Your task to perform on an android device: empty trash in google photos Image 0: 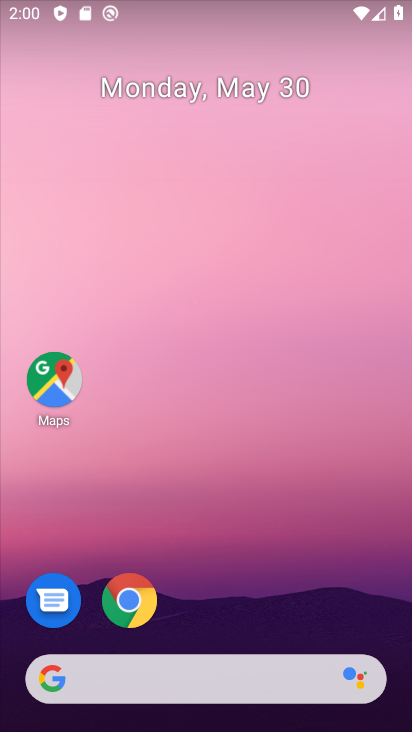
Step 0: drag from (267, 627) to (203, 129)
Your task to perform on an android device: empty trash in google photos Image 1: 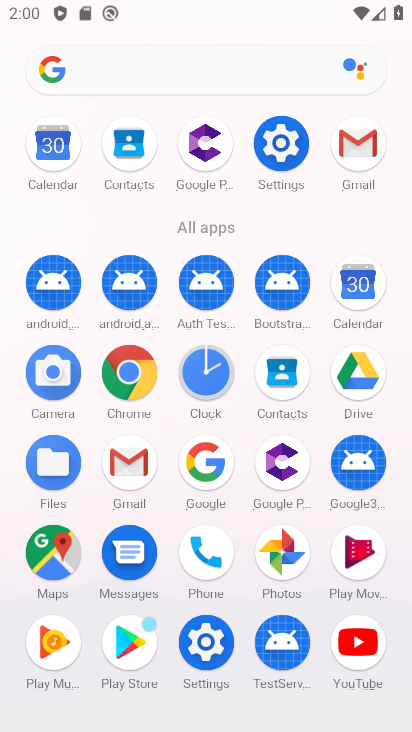
Step 1: click (289, 546)
Your task to perform on an android device: empty trash in google photos Image 2: 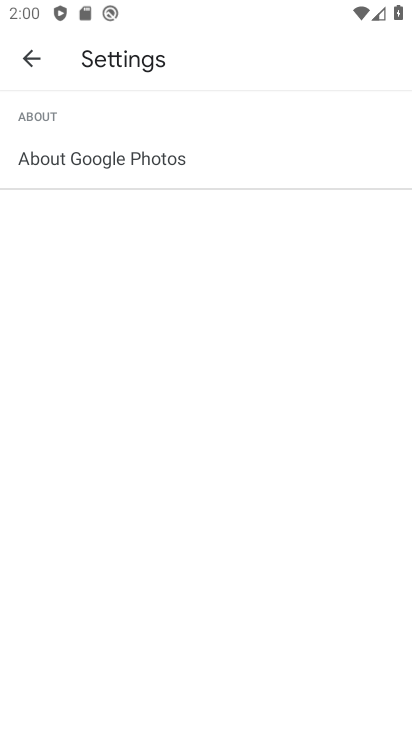
Step 2: click (35, 49)
Your task to perform on an android device: empty trash in google photos Image 3: 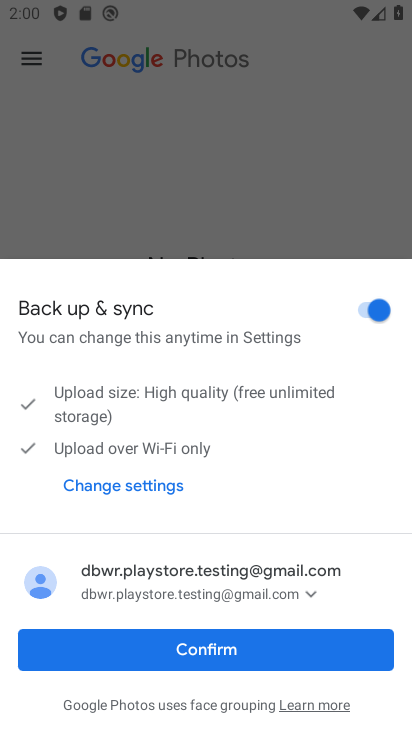
Step 3: click (237, 647)
Your task to perform on an android device: empty trash in google photos Image 4: 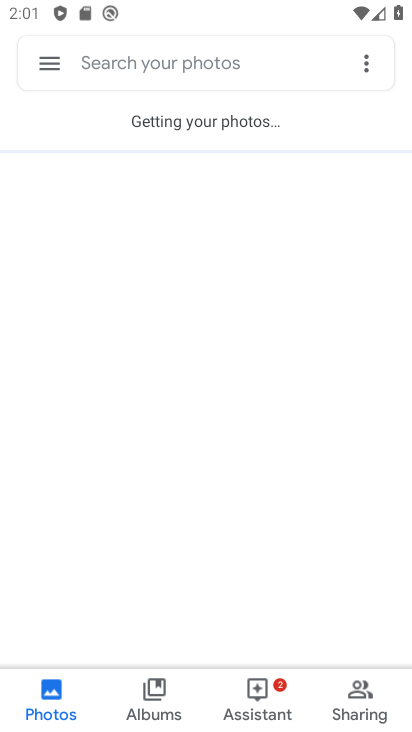
Step 4: click (50, 59)
Your task to perform on an android device: empty trash in google photos Image 5: 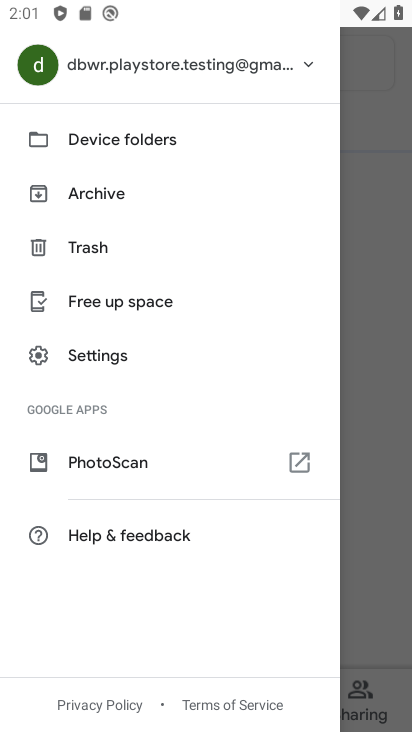
Step 5: click (110, 247)
Your task to perform on an android device: empty trash in google photos Image 6: 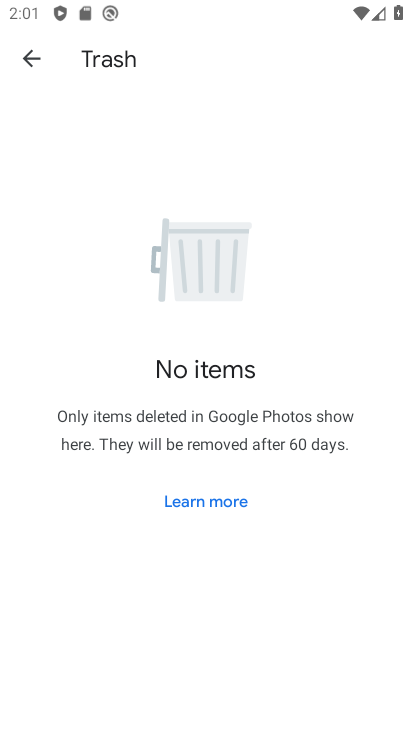
Step 6: task complete